Your task to perform on an android device: Search for "logitech g903" on walmart, select the first entry, and add it to the cart. Image 0: 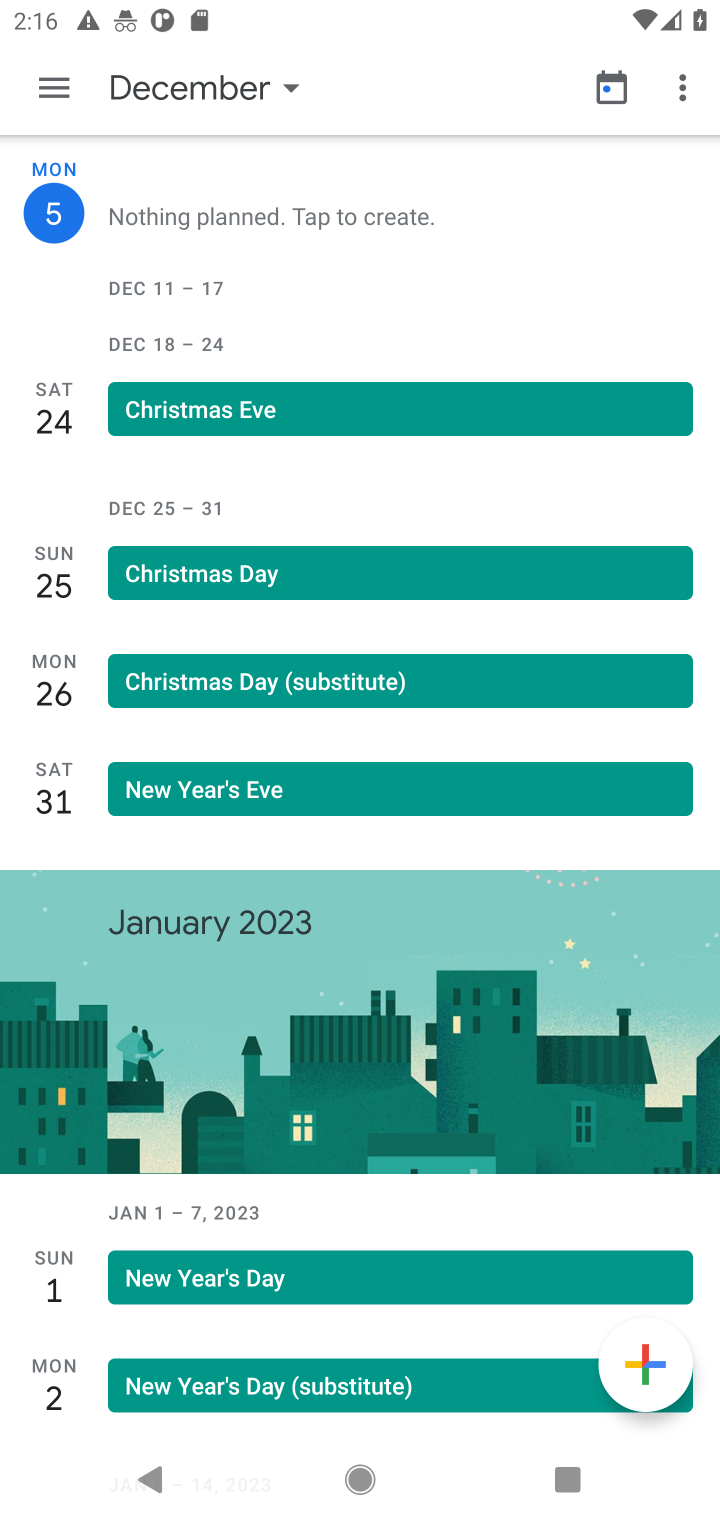
Step 0: press home button
Your task to perform on an android device: Search for "logitech g903" on walmart, select the first entry, and add it to the cart. Image 1: 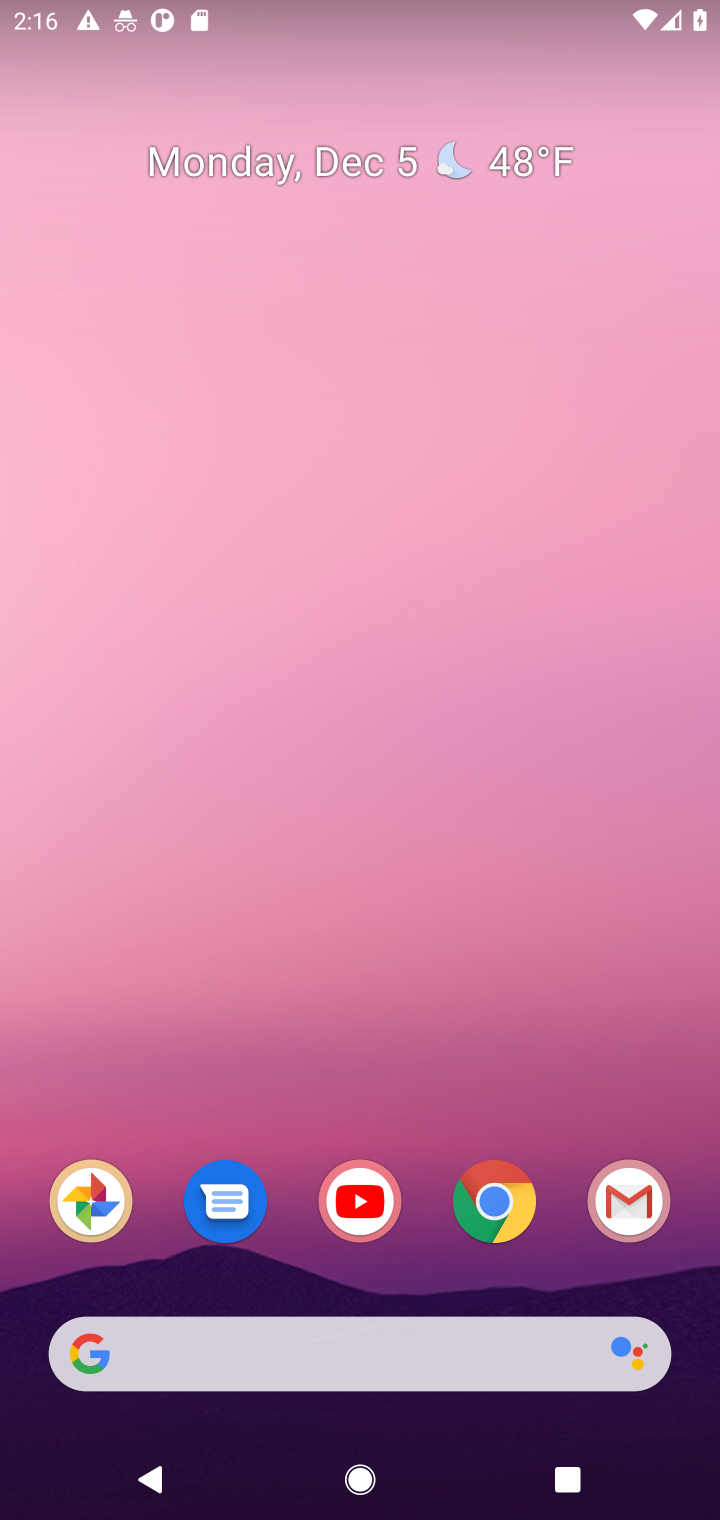
Step 1: click (527, 1176)
Your task to perform on an android device: Search for "logitech g903" on walmart, select the first entry, and add it to the cart. Image 2: 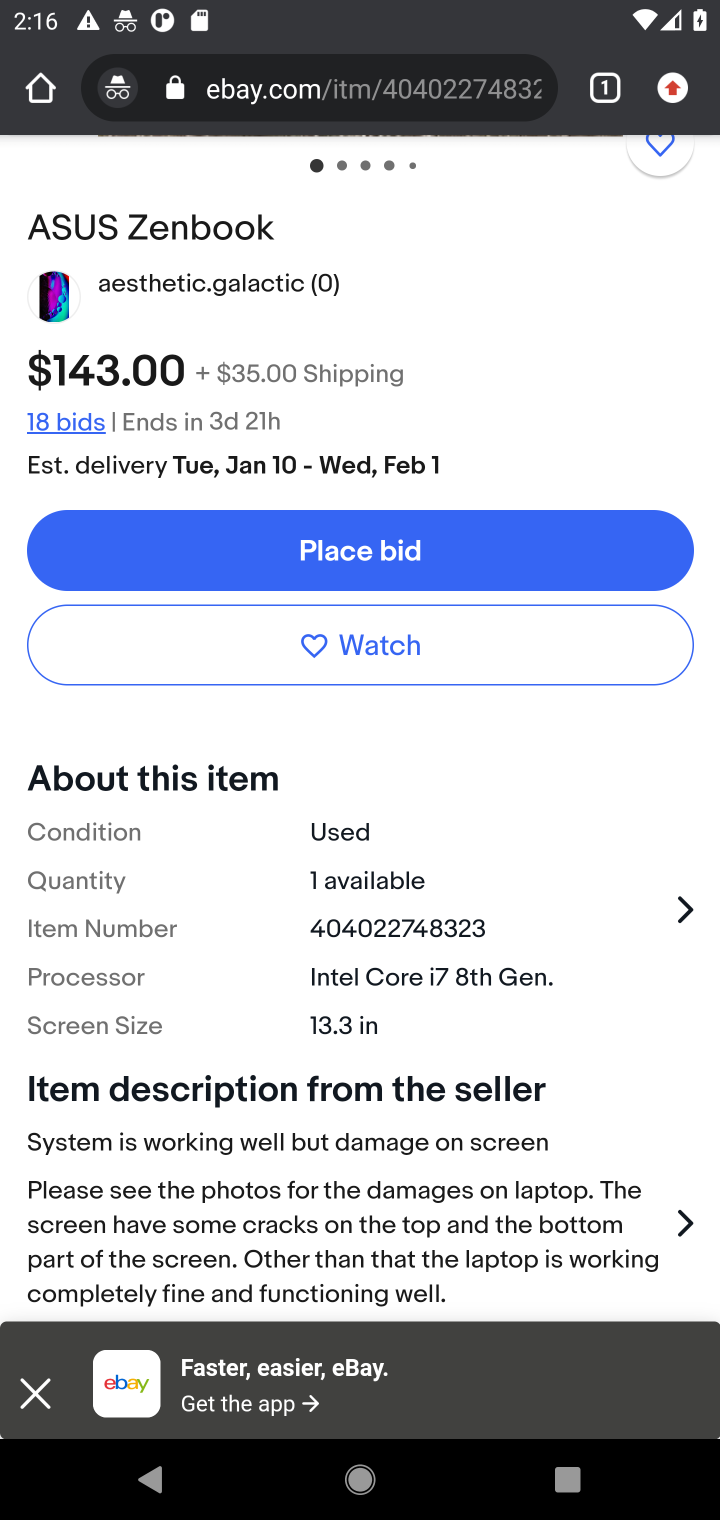
Step 2: press home button
Your task to perform on an android device: Search for "logitech g903" on walmart, select the first entry, and add it to the cart. Image 3: 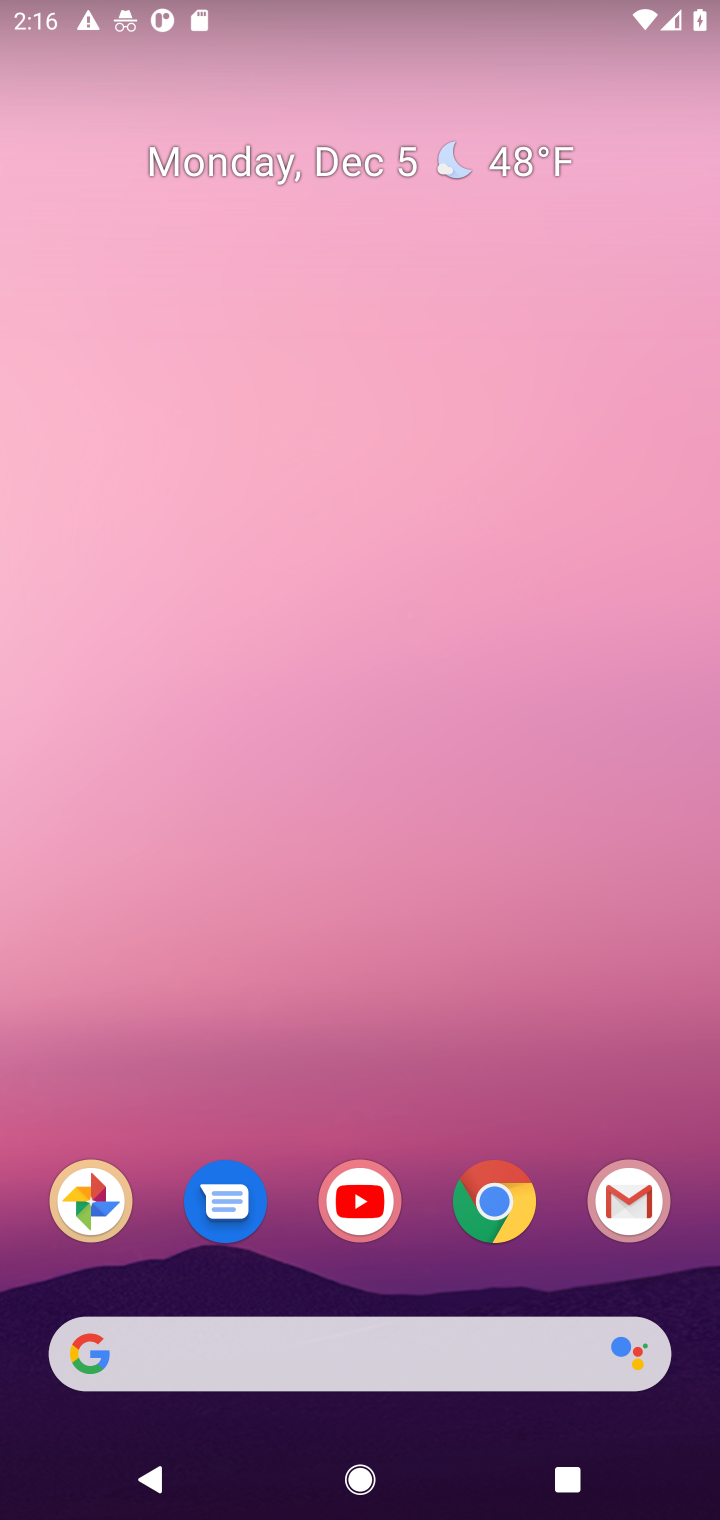
Step 3: click (460, 1199)
Your task to perform on an android device: Search for "logitech g903" on walmart, select the first entry, and add it to the cart. Image 4: 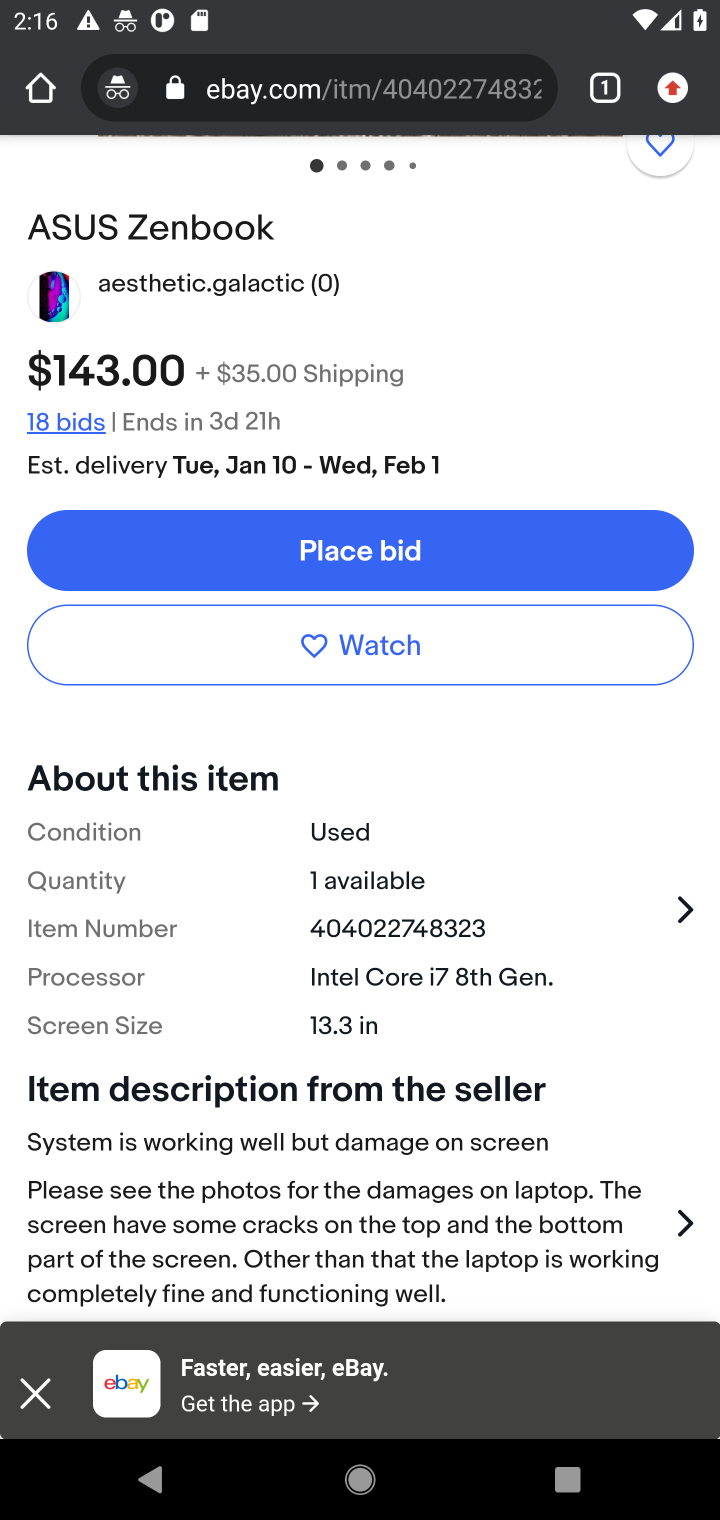
Step 4: click (413, 109)
Your task to perform on an android device: Search for "logitech g903" on walmart, select the first entry, and add it to the cart. Image 5: 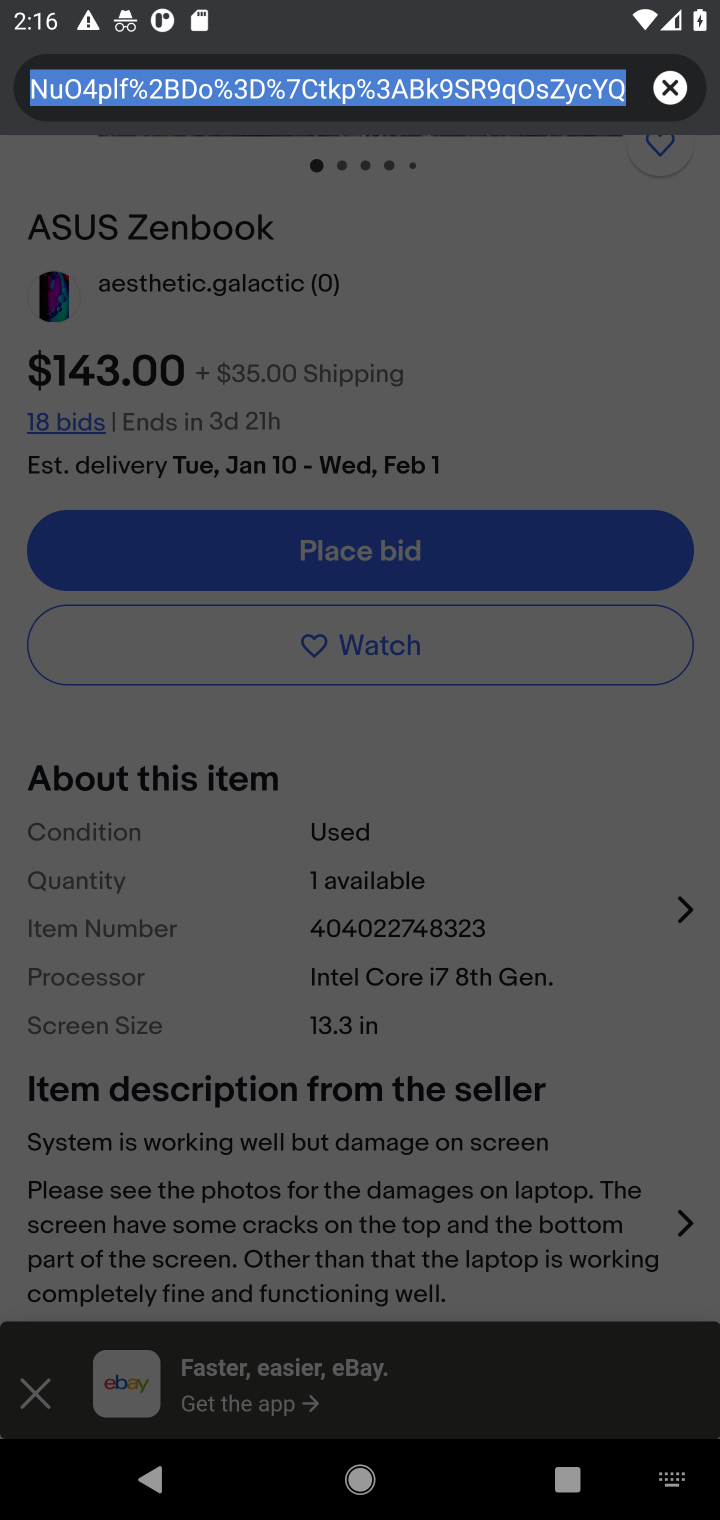
Step 5: click (654, 91)
Your task to perform on an android device: Search for "logitech g903" on walmart, select the first entry, and add it to the cart. Image 6: 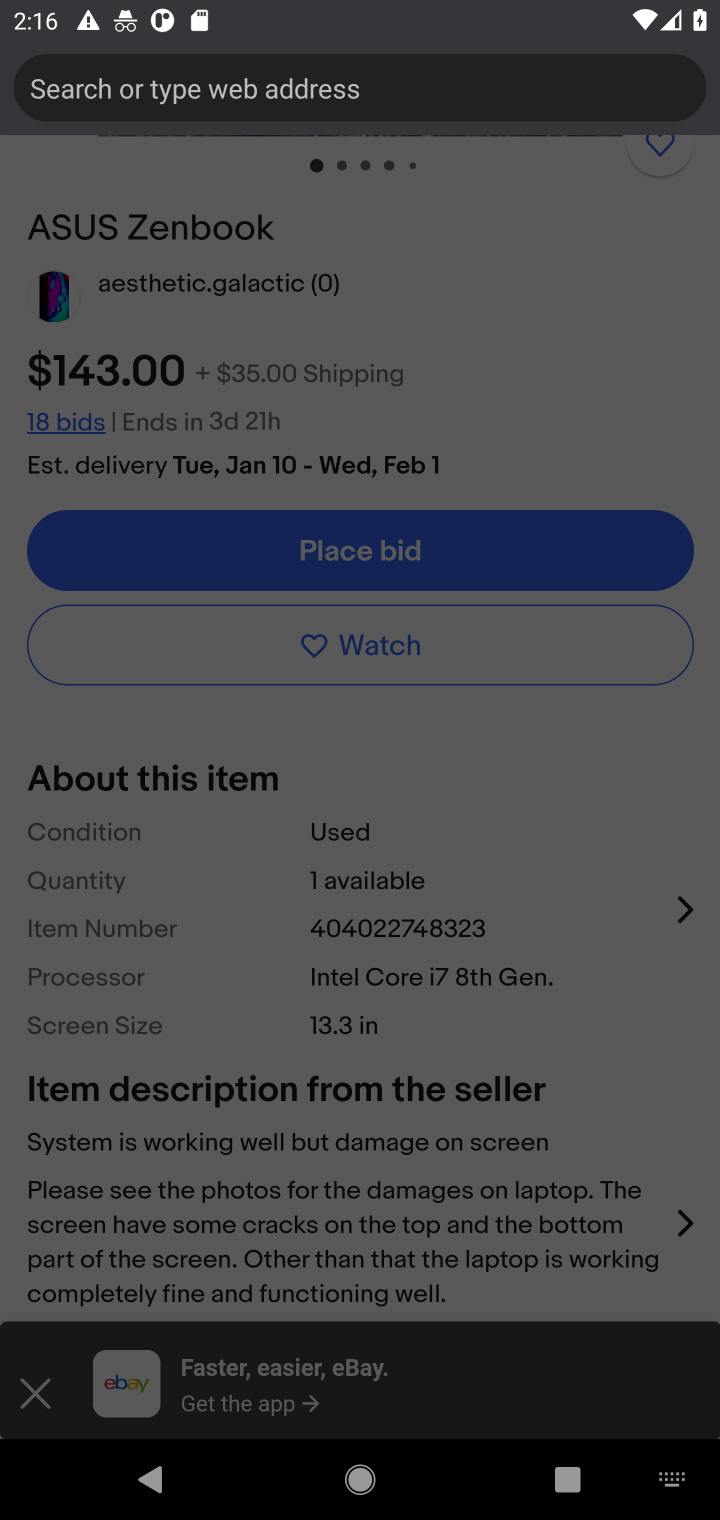
Step 6: type "walmart"
Your task to perform on an android device: Search for "logitech g903" on walmart, select the first entry, and add it to the cart. Image 7: 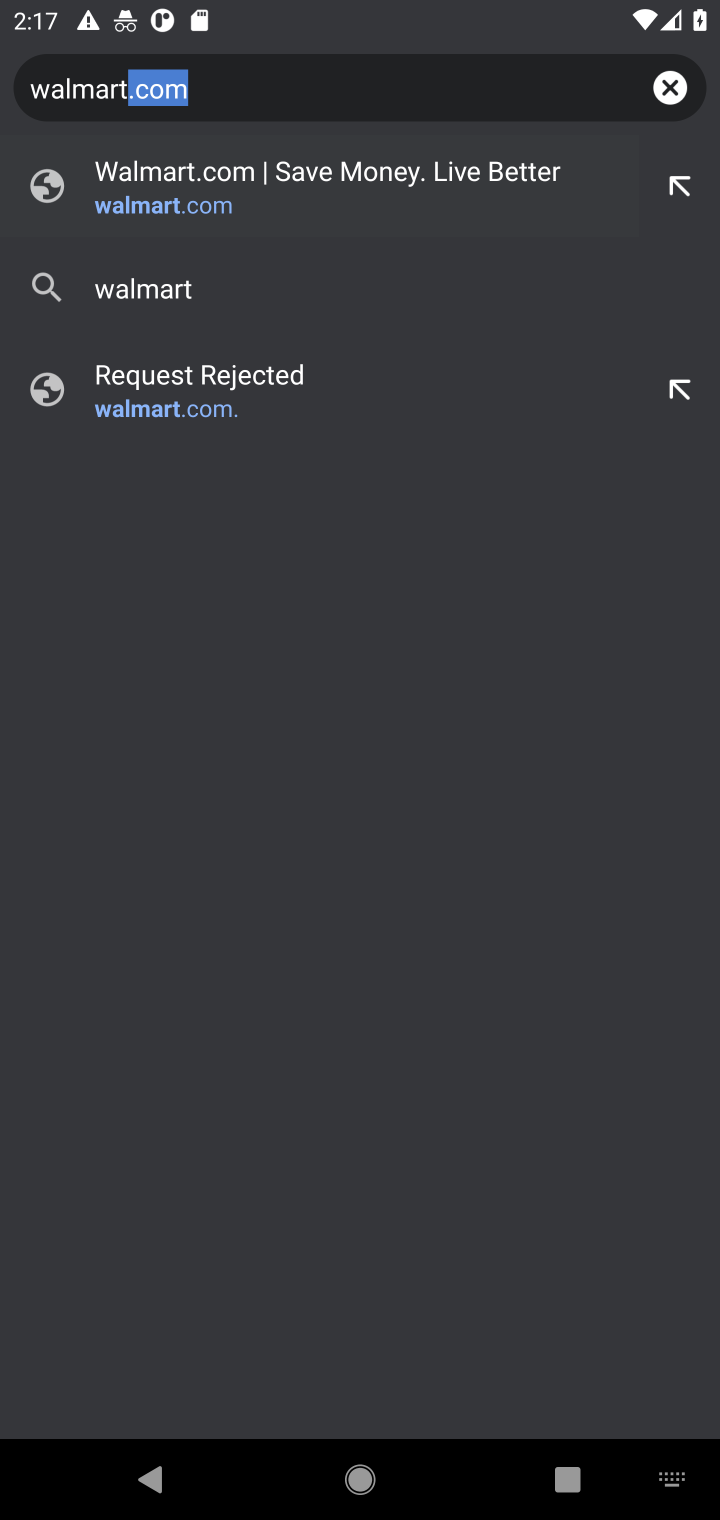
Step 7: click (300, 213)
Your task to perform on an android device: Search for "logitech g903" on walmart, select the first entry, and add it to the cart. Image 8: 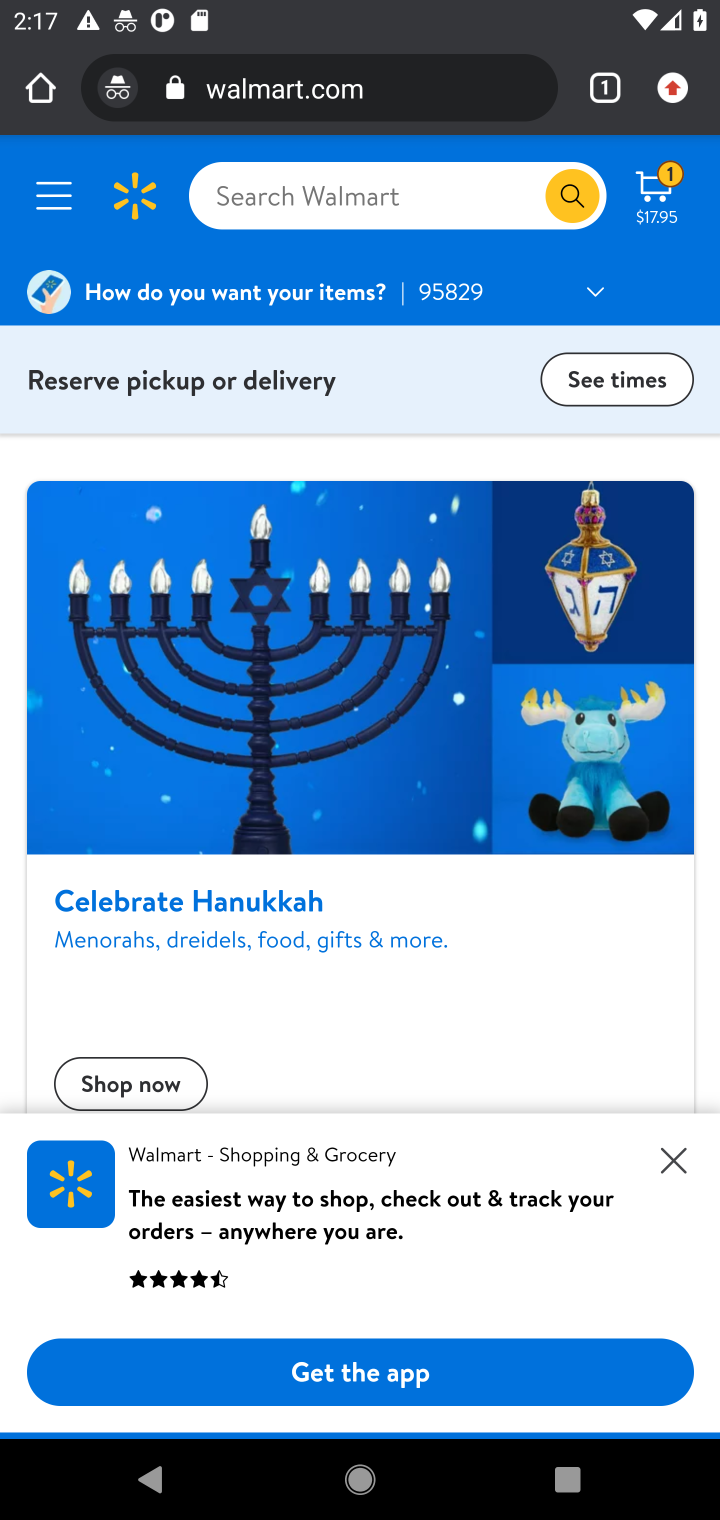
Step 8: click (375, 185)
Your task to perform on an android device: Search for "logitech g903" on walmart, select the first entry, and add it to the cart. Image 9: 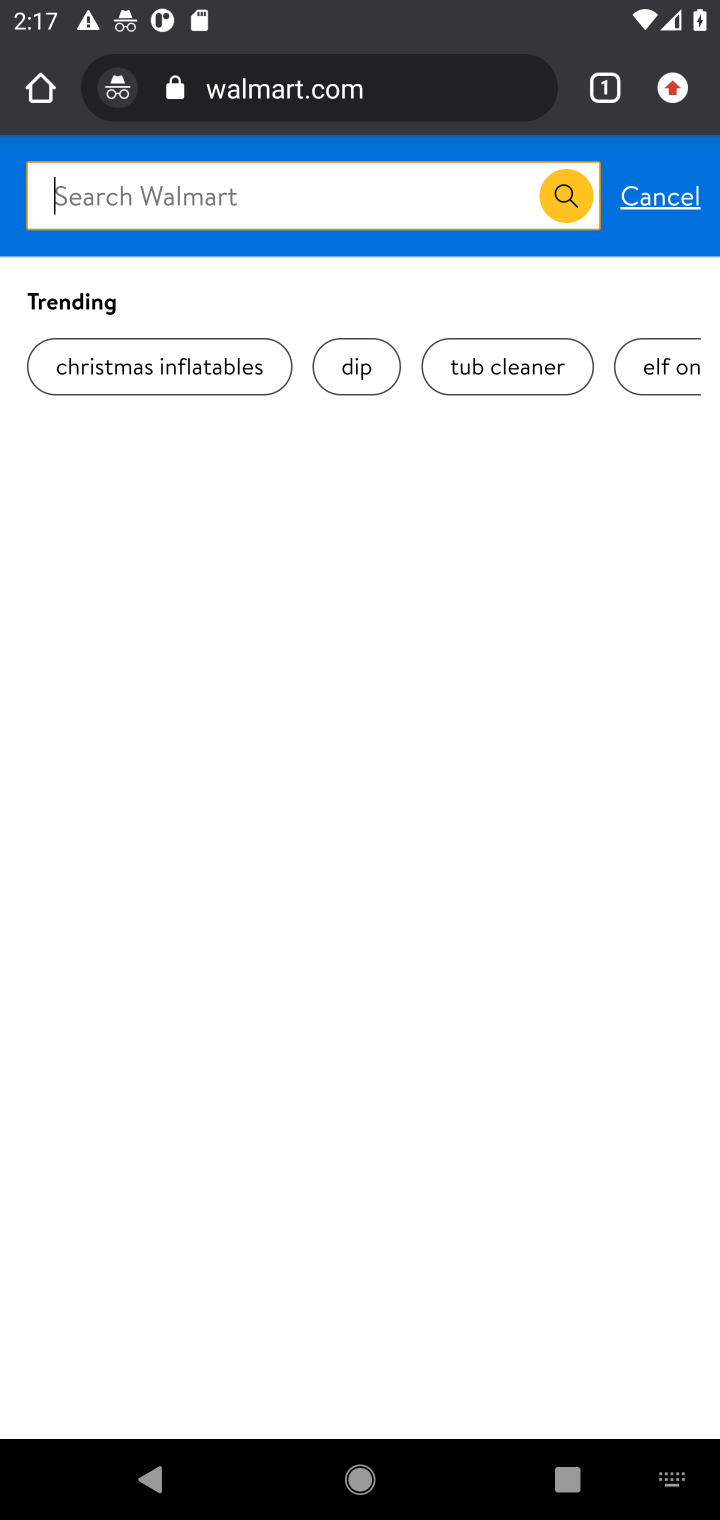
Step 9: type "logitech g903"
Your task to perform on an android device: Search for "logitech g903" on walmart, select the first entry, and add it to the cart. Image 10: 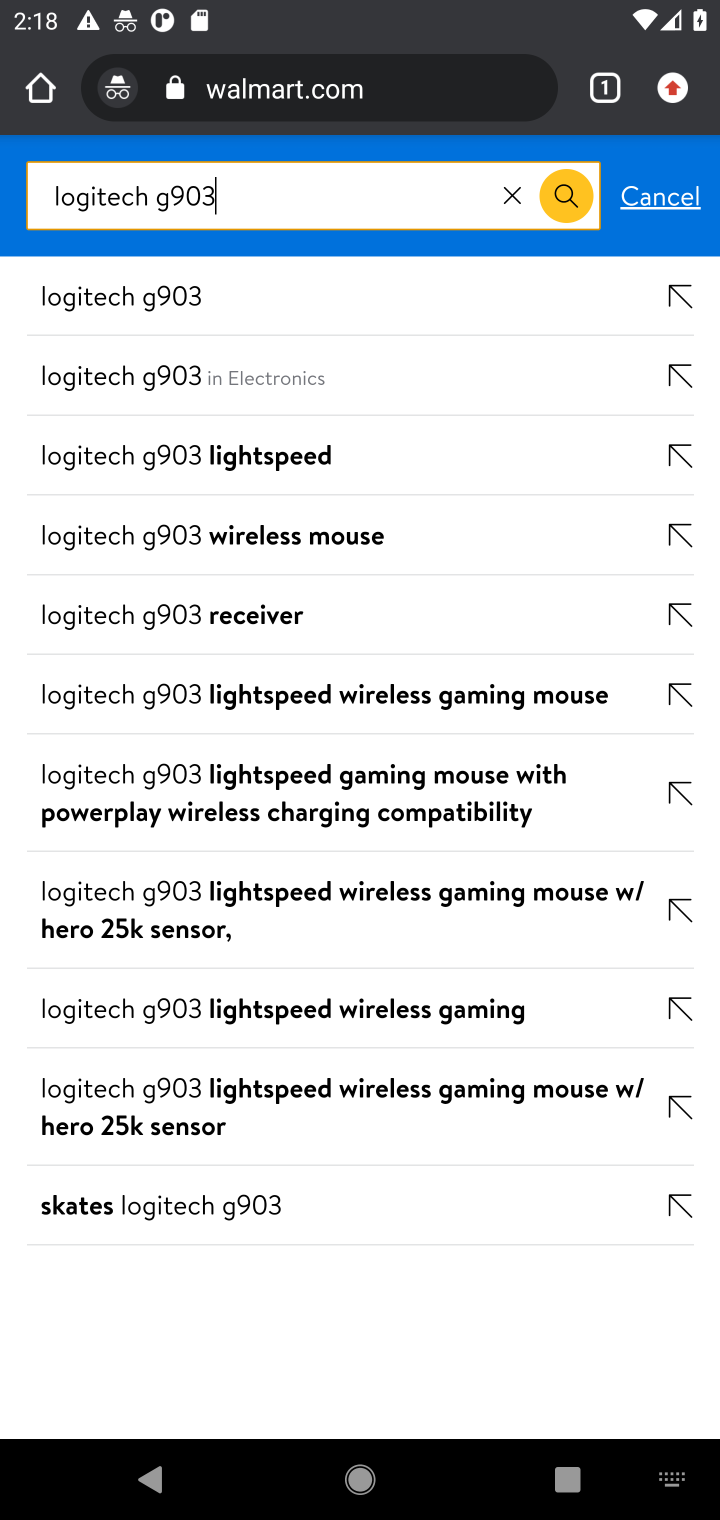
Step 10: click (101, 317)
Your task to perform on an android device: Search for "logitech g903" on walmart, select the first entry, and add it to the cart. Image 11: 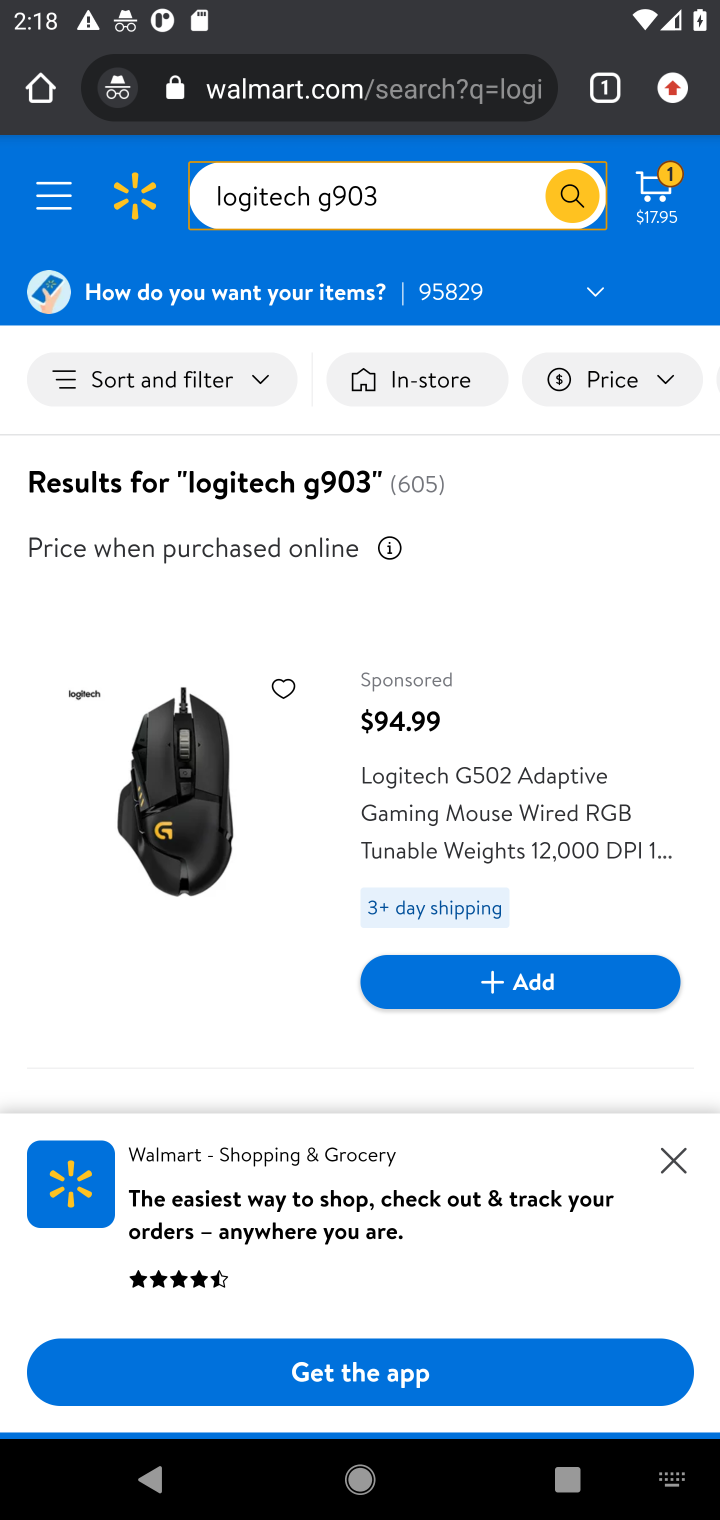
Step 11: click (661, 1159)
Your task to perform on an android device: Search for "logitech g903" on walmart, select the first entry, and add it to the cart. Image 12: 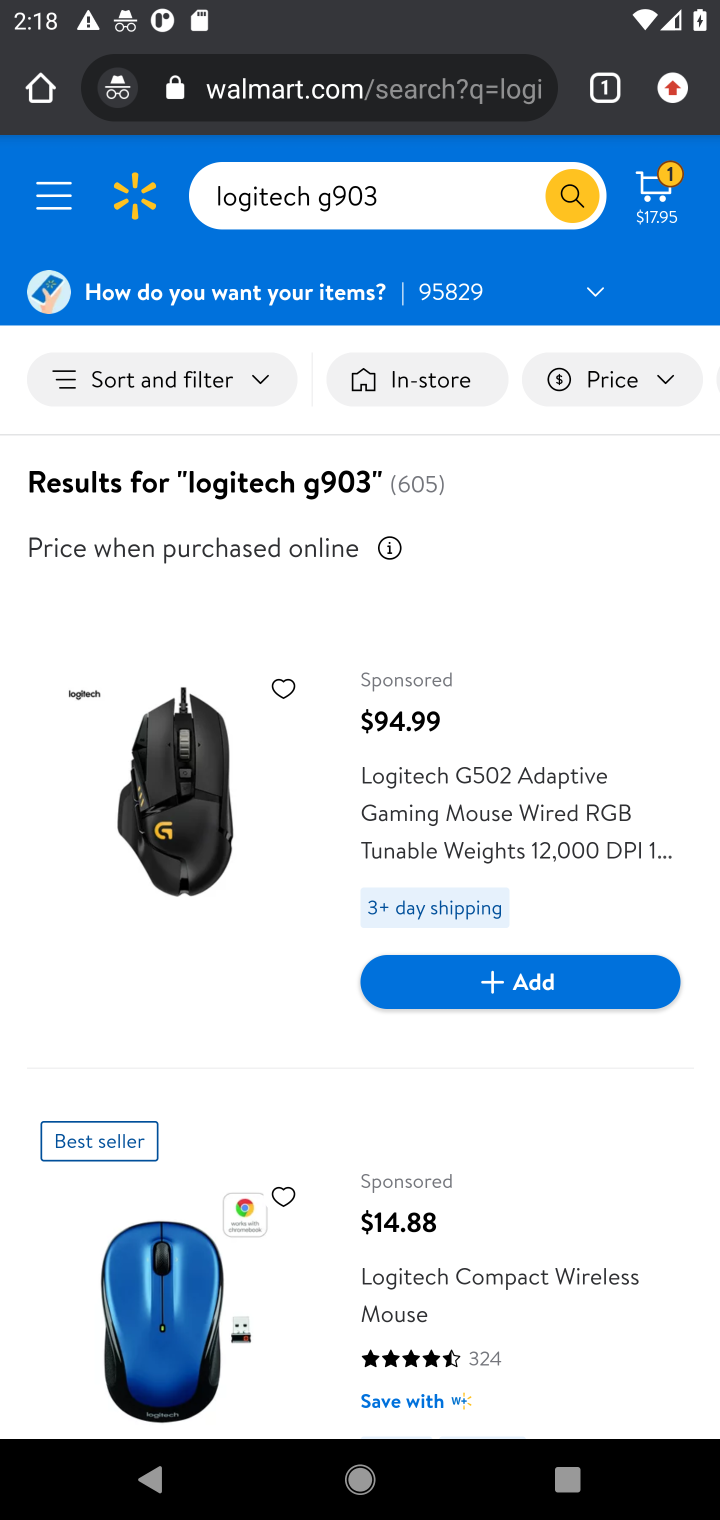
Step 12: task complete